Your task to perform on an android device: Go to settings Image 0: 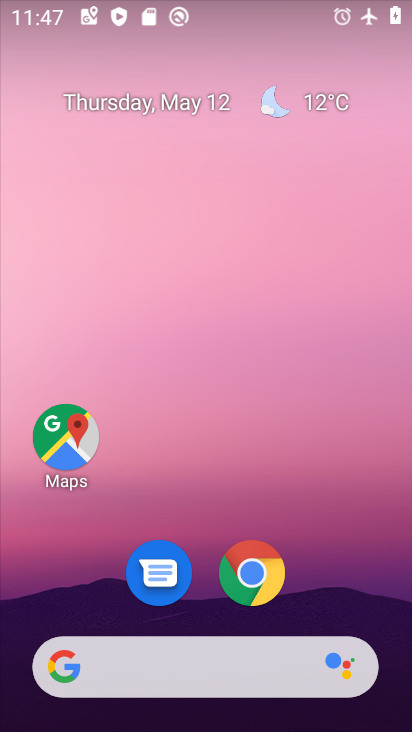
Step 0: drag from (214, 727) to (410, 42)
Your task to perform on an android device: Go to settings Image 1: 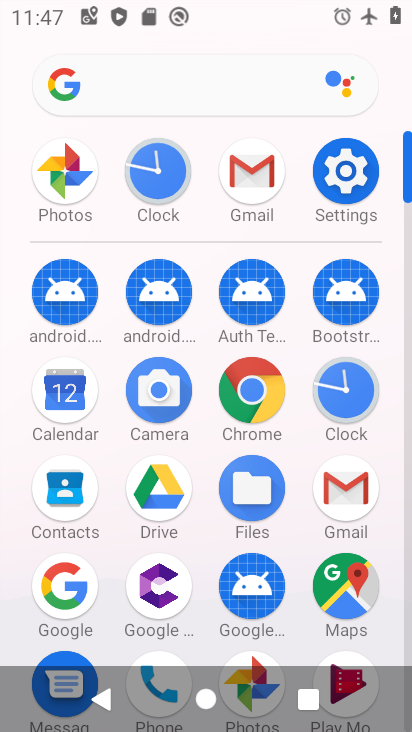
Step 1: click (365, 184)
Your task to perform on an android device: Go to settings Image 2: 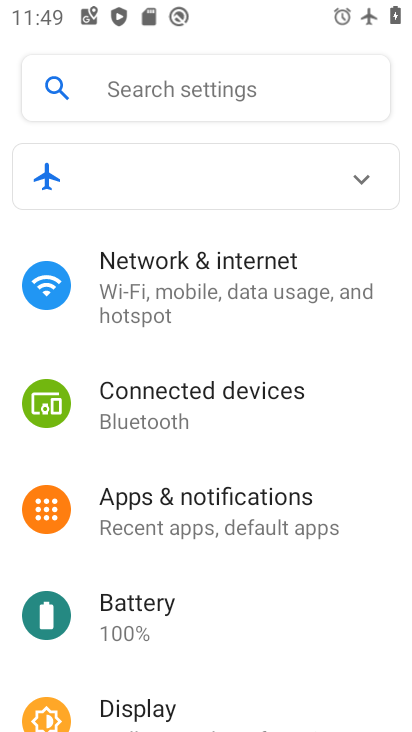
Step 2: task complete